Your task to perform on an android device: turn on the 12-hour format for clock Image 0: 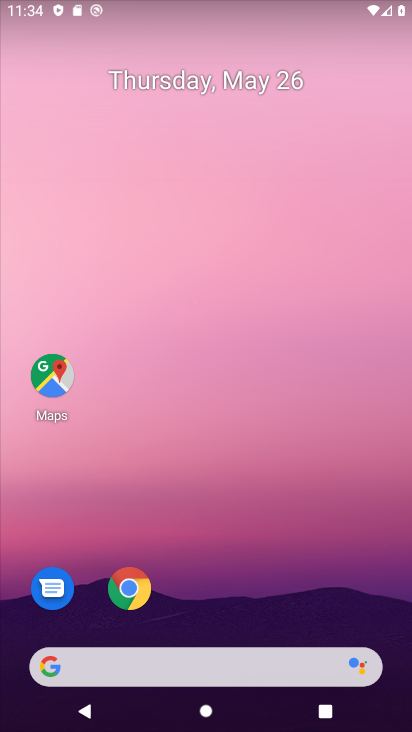
Step 0: drag from (186, 624) to (215, 7)
Your task to perform on an android device: turn on the 12-hour format for clock Image 1: 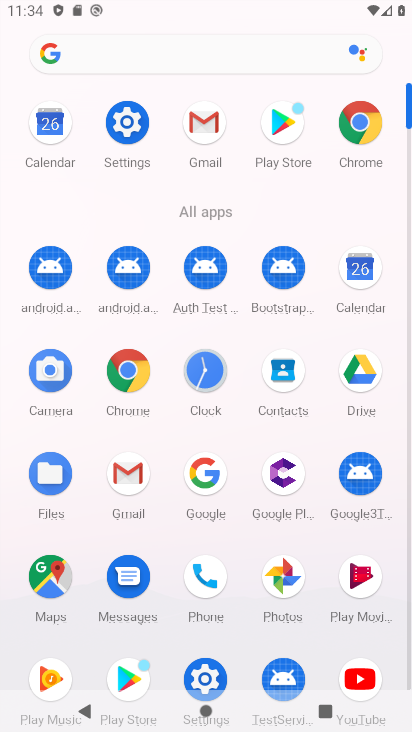
Step 1: click (181, 380)
Your task to perform on an android device: turn on the 12-hour format for clock Image 2: 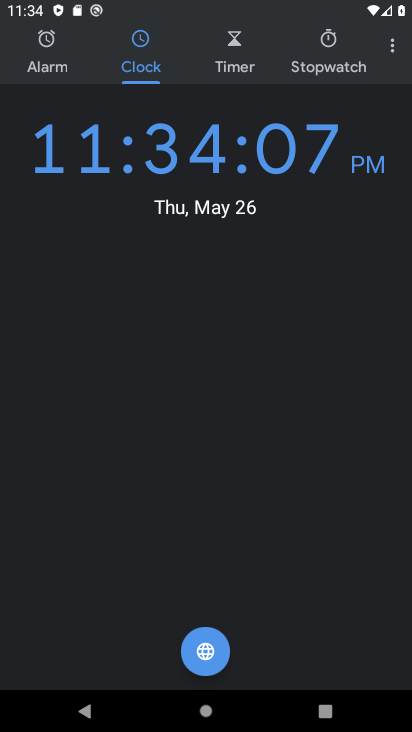
Step 2: click (384, 46)
Your task to perform on an android device: turn on the 12-hour format for clock Image 3: 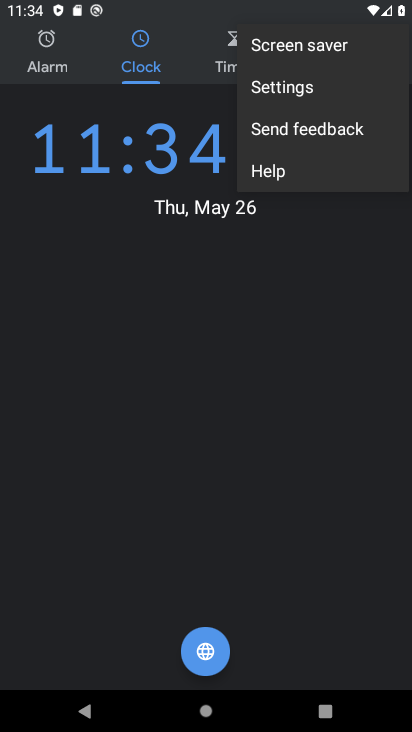
Step 3: click (289, 90)
Your task to perform on an android device: turn on the 12-hour format for clock Image 4: 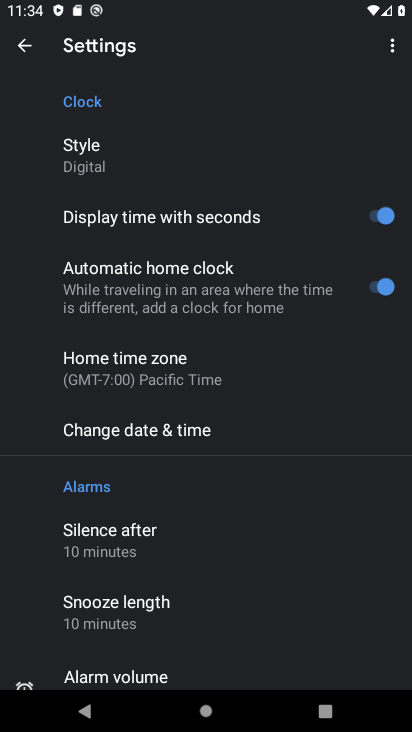
Step 4: click (161, 440)
Your task to perform on an android device: turn on the 12-hour format for clock Image 5: 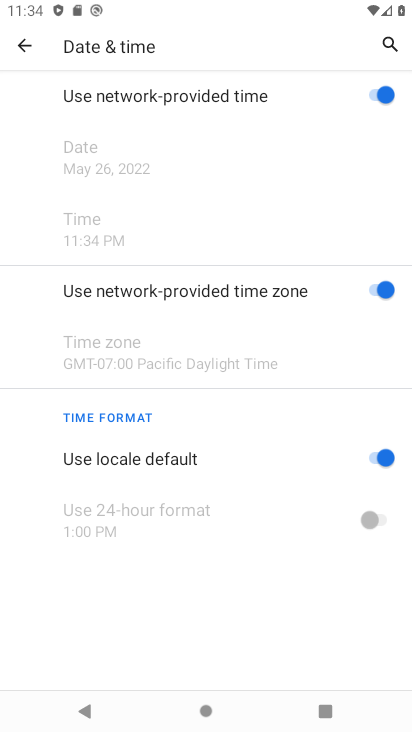
Step 5: task complete